Your task to perform on an android device: When is my next meeting? Image 0: 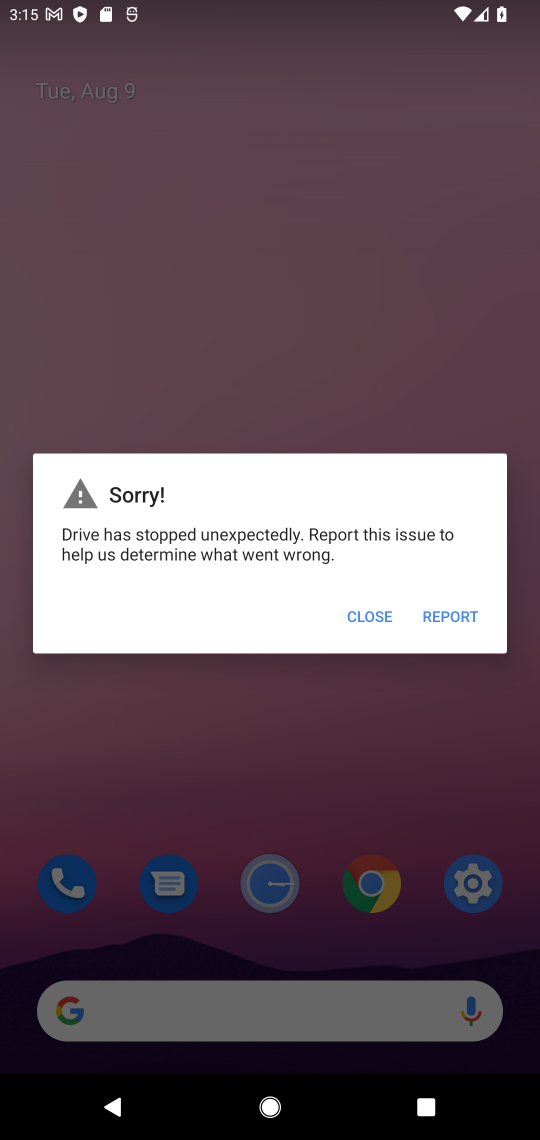
Step 0: press home button
Your task to perform on an android device: When is my next meeting? Image 1: 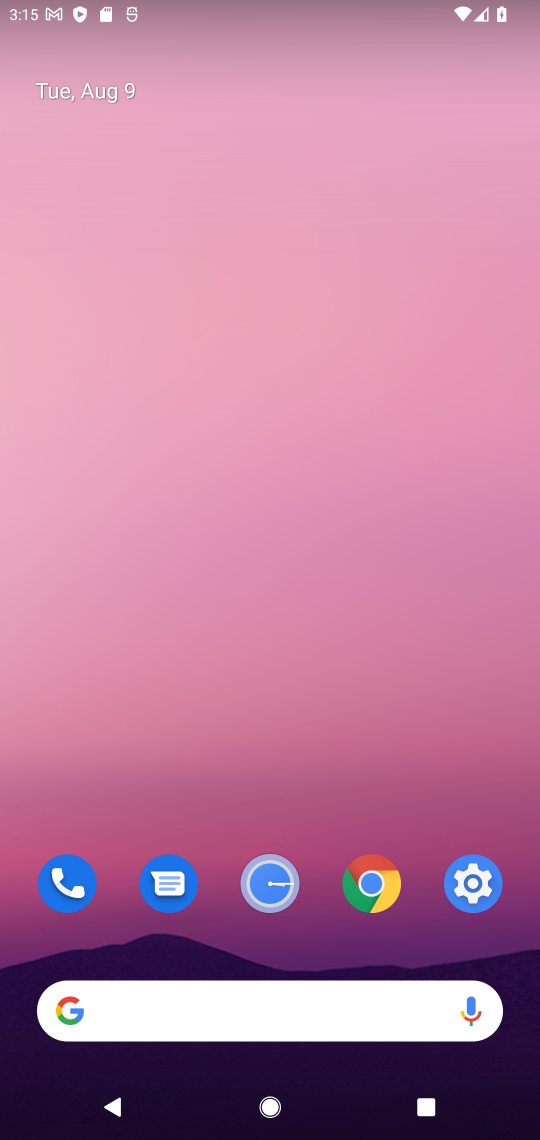
Step 1: drag from (295, 1082) to (252, 418)
Your task to perform on an android device: When is my next meeting? Image 2: 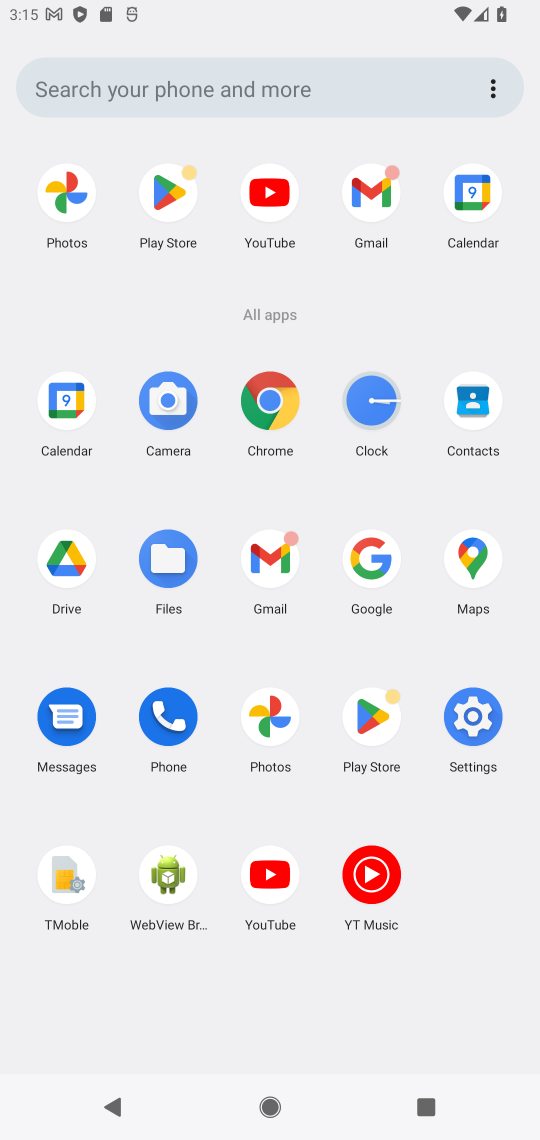
Step 2: click (64, 380)
Your task to perform on an android device: When is my next meeting? Image 3: 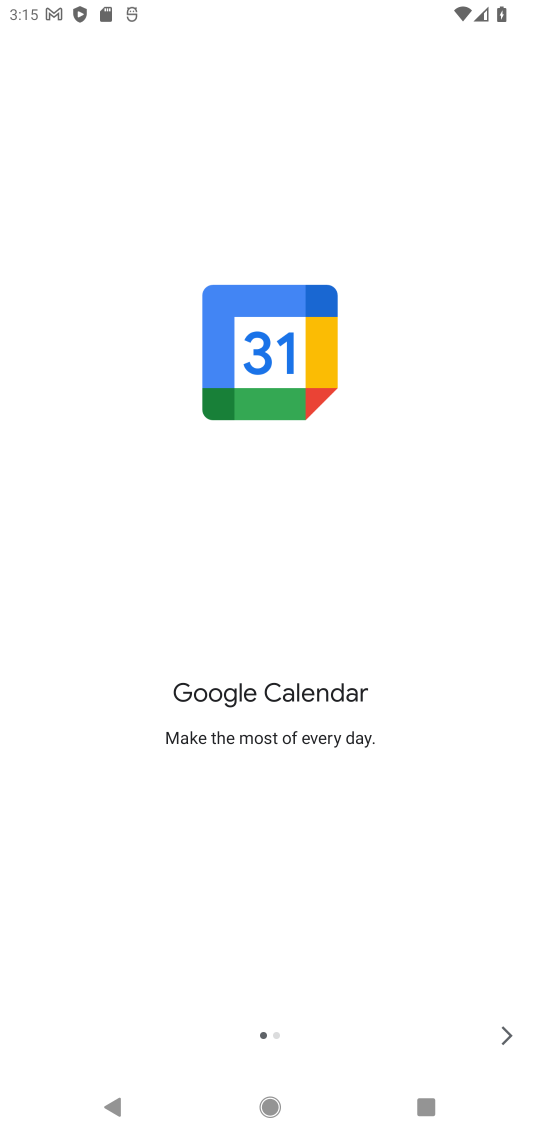
Step 3: click (492, 1039)
Your task to perform on an android device: When is my next meeting? Image 4: 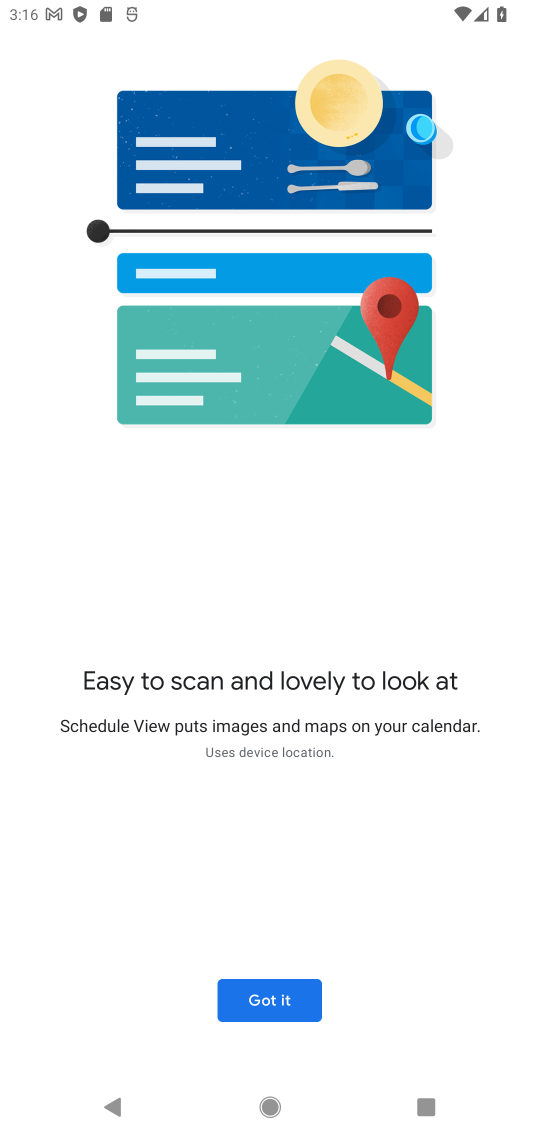
Step 4: click (297, 996)
Your task to perform on an android device: When is my next meeting? Image 5: 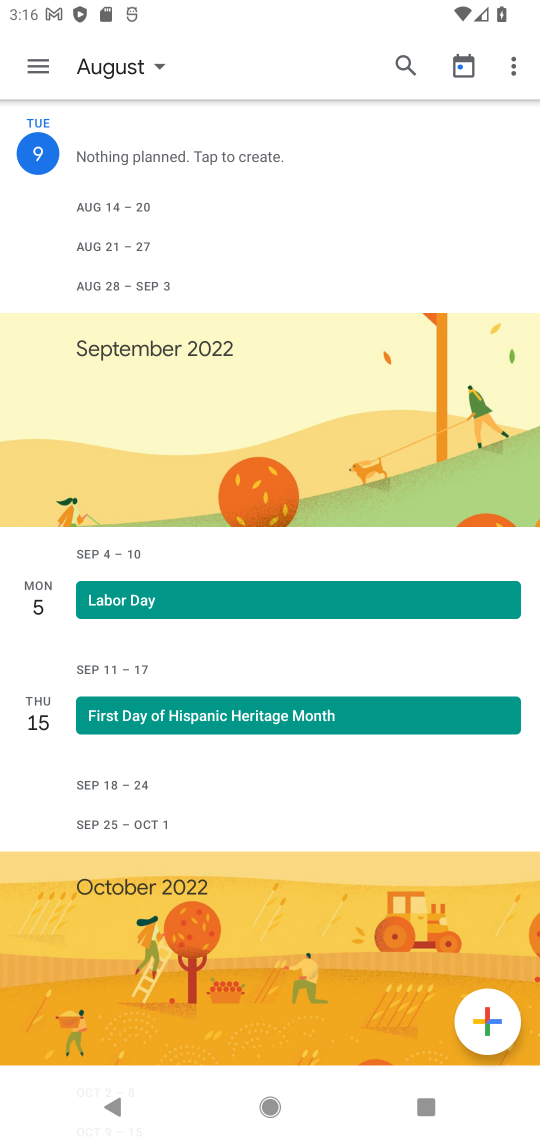
Step 5: click (49, 62)
Your task to perform on an android device: When is my next meeting? Image 6: 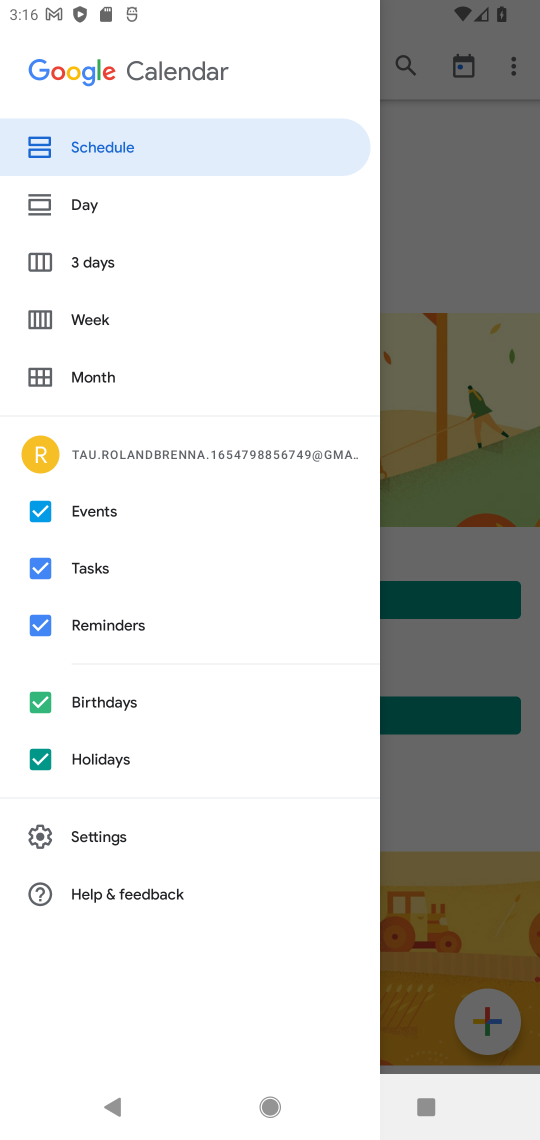
Step 6: click (94, 382)
Your task to perform on an android device: When is my next meeting? Image 7: 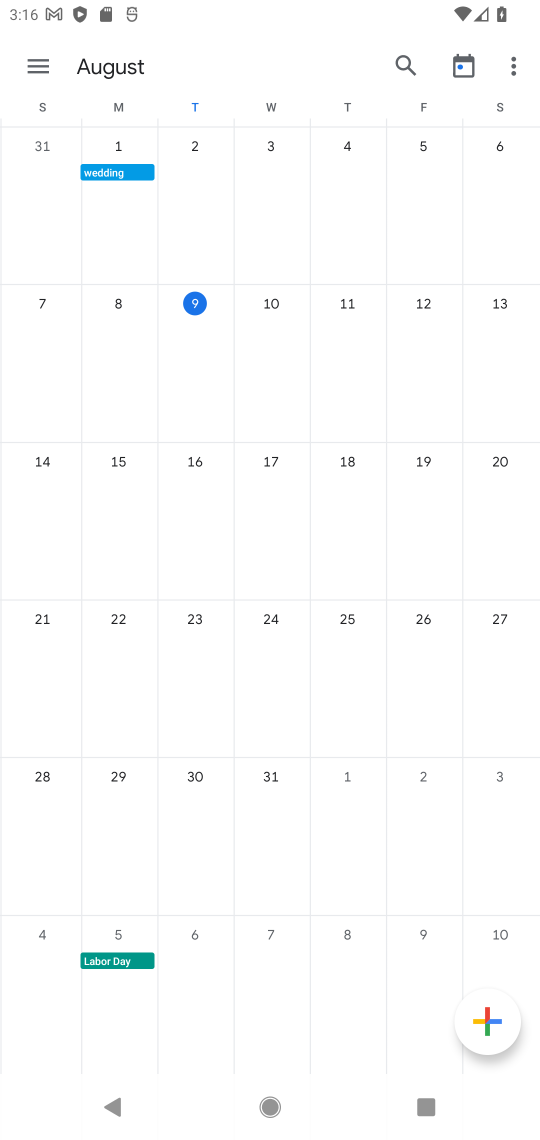
Step 7: click (192, 335)
Your task to perform on an android device: When is my next meeting? Image 8: 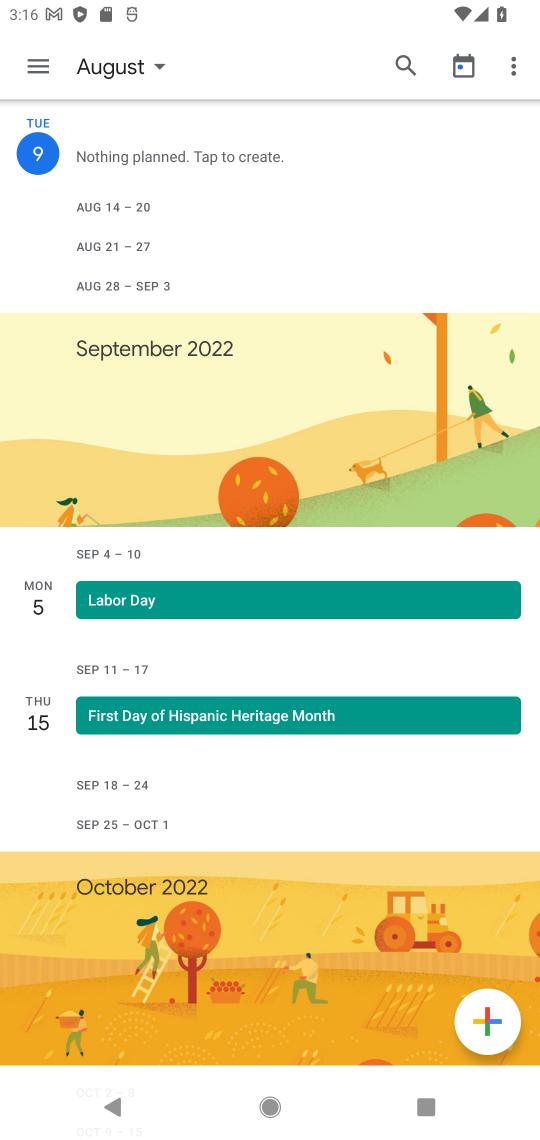
Step 8: task complete